Your task to perform on an android device: install app "Google Maps" Image 0: 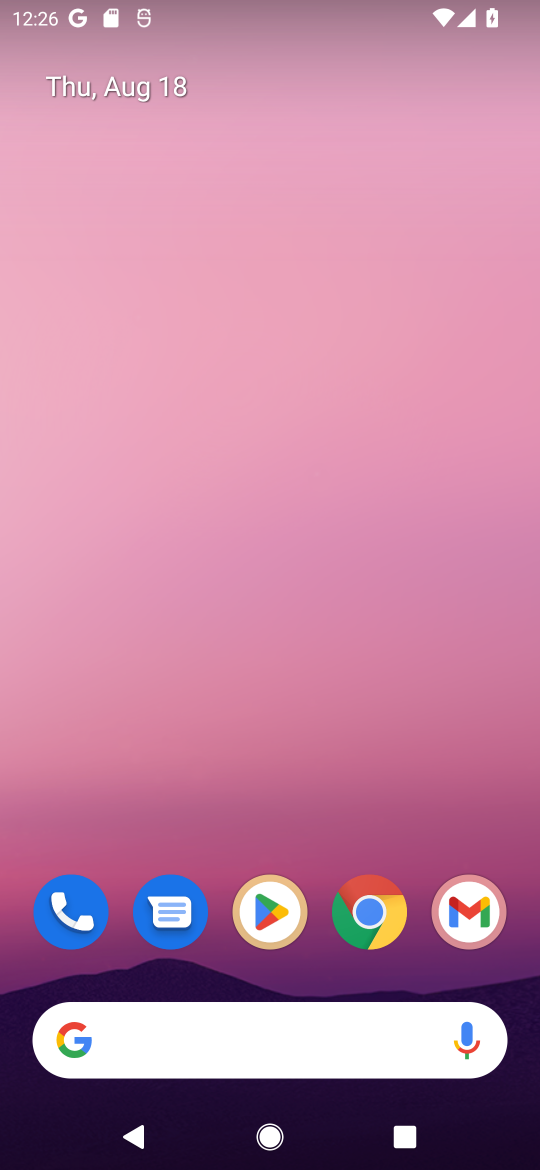
Step 0: drag from (270, 998) to (394, 149)
Your task to perform on an android device: install app "Google Maps" Image 1: 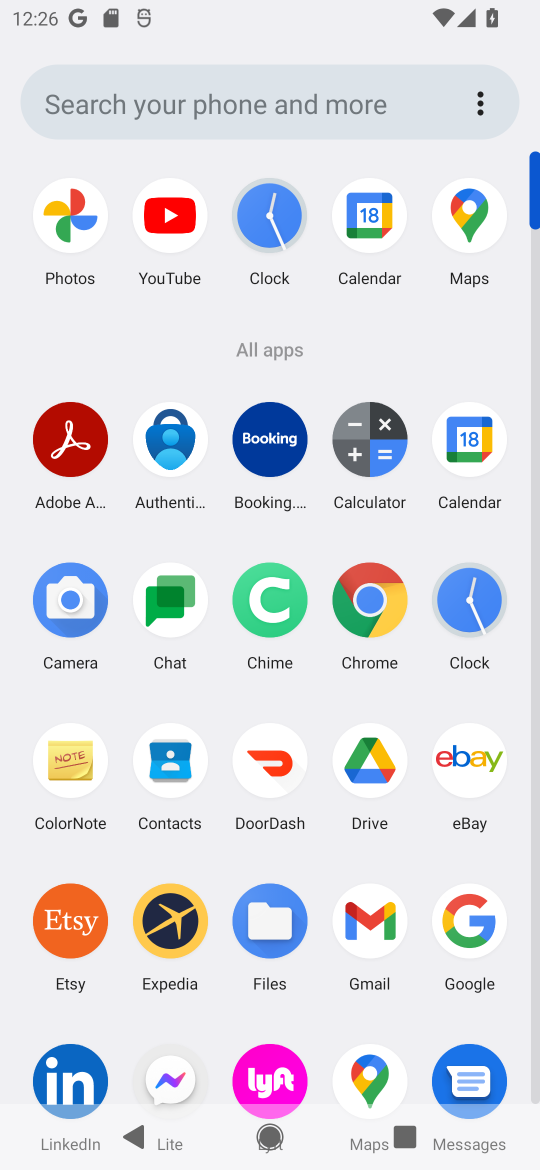
Step 1: click (375, 1070)
Your task to perform on an android device: install app "Google Maps" Image 2: 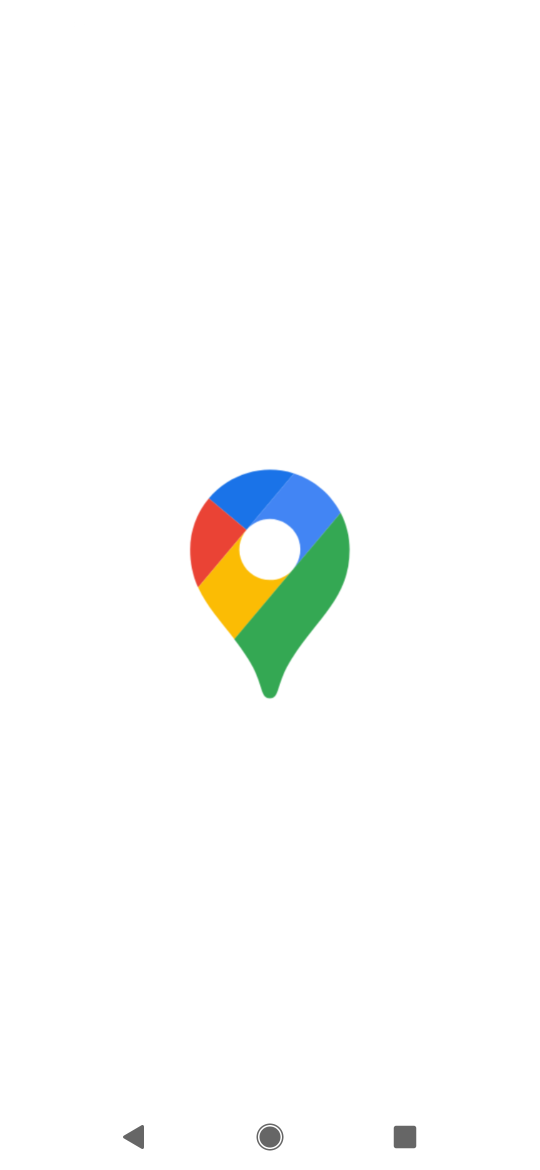
Step 2: task complete